Your task to perform on an android device: Go to internet settings Image 0: 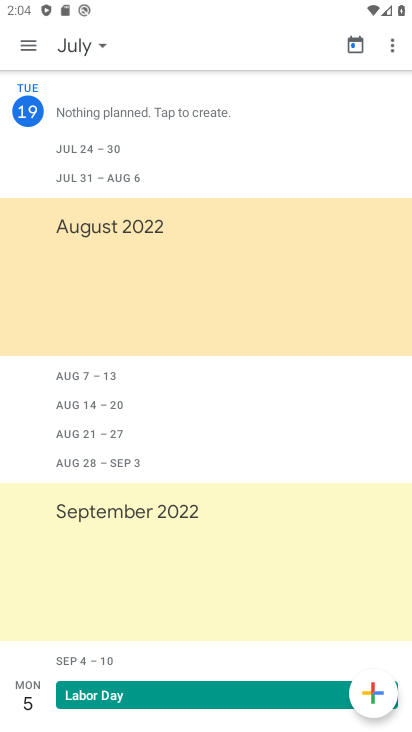
Step 0: press home button
Your task to perform on an android device: Go to internet settings Image 1: 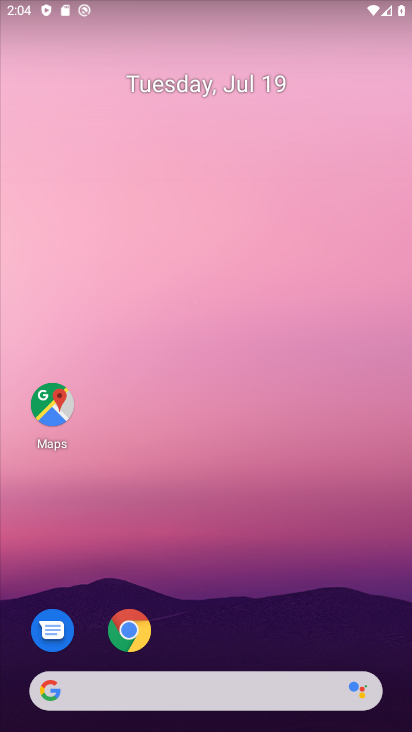
Step 1: drag from (243, 593) to (270, 39)
Your task to perform on an android device: Go to internet settings Image 2: 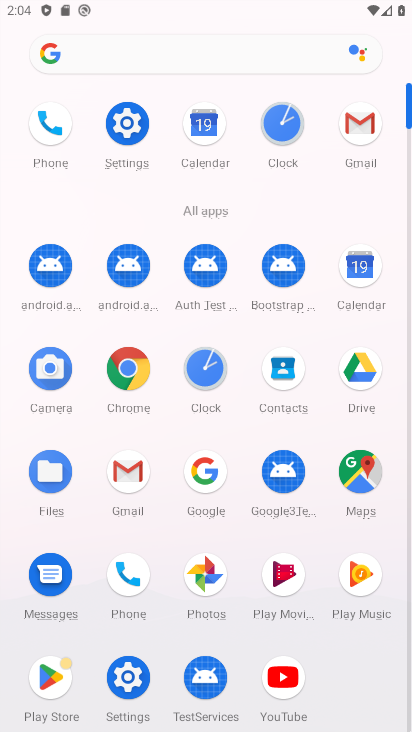
Step 2: click (126, 108)
Your task to perform on an android device: Go to internet settings Image 3: 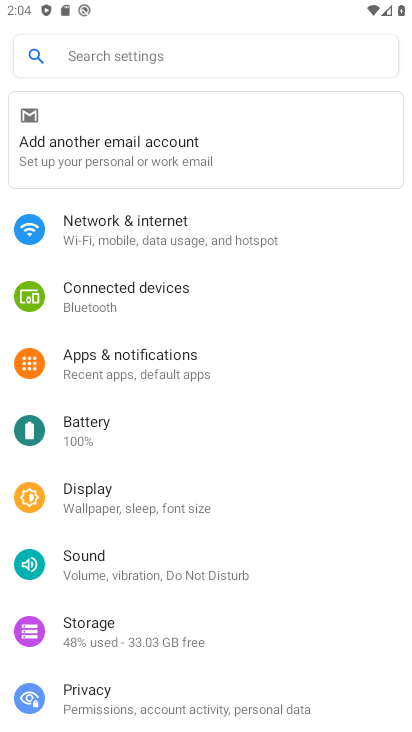
Step 3: click (195, 229)
Your task to perform on an android device: Go to internet settings Image 4: 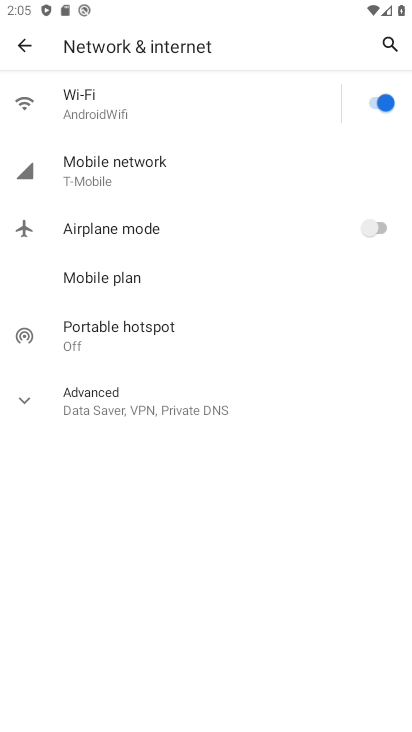
Step 4: task complete